Your task to perform on an android device: turn off picture-in-picture Image 0: 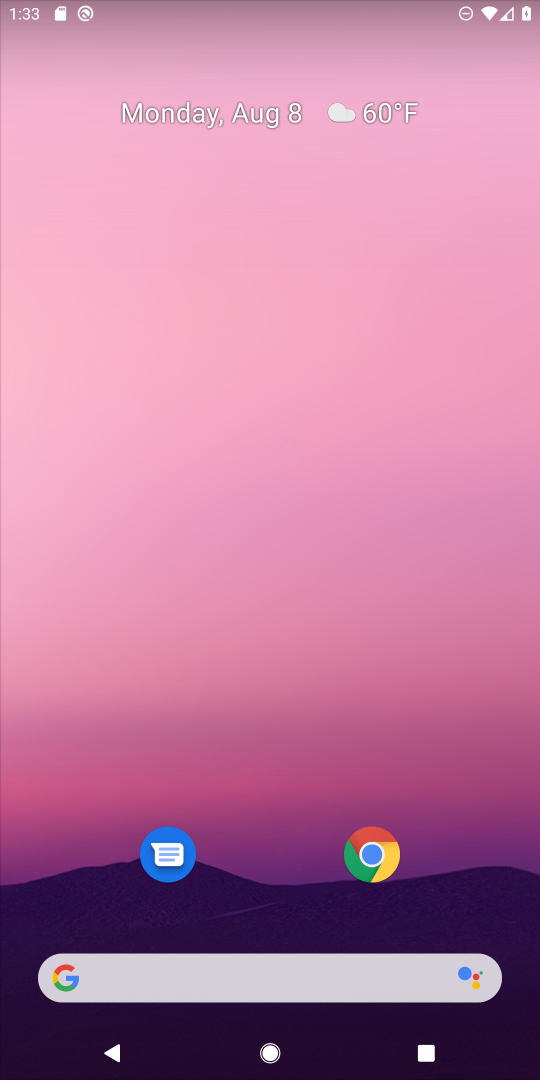
Step 0: click (379, 858)
Your task to perform on an android device: turn off picture-in-picture Image 1: 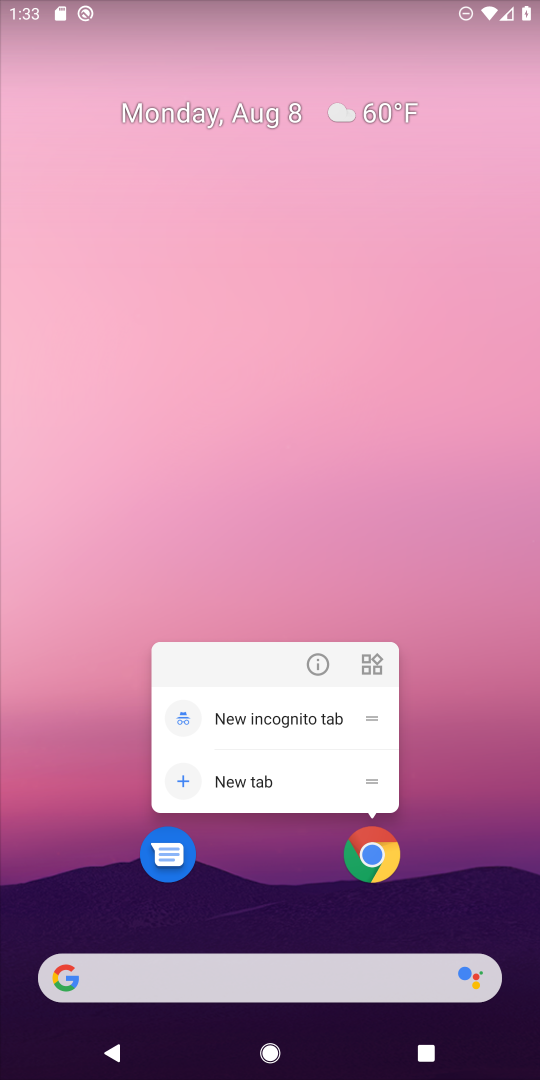
Step 1: click (319, 660)
Your task to perform on an android device: turn off picture-in-picture Image 2: 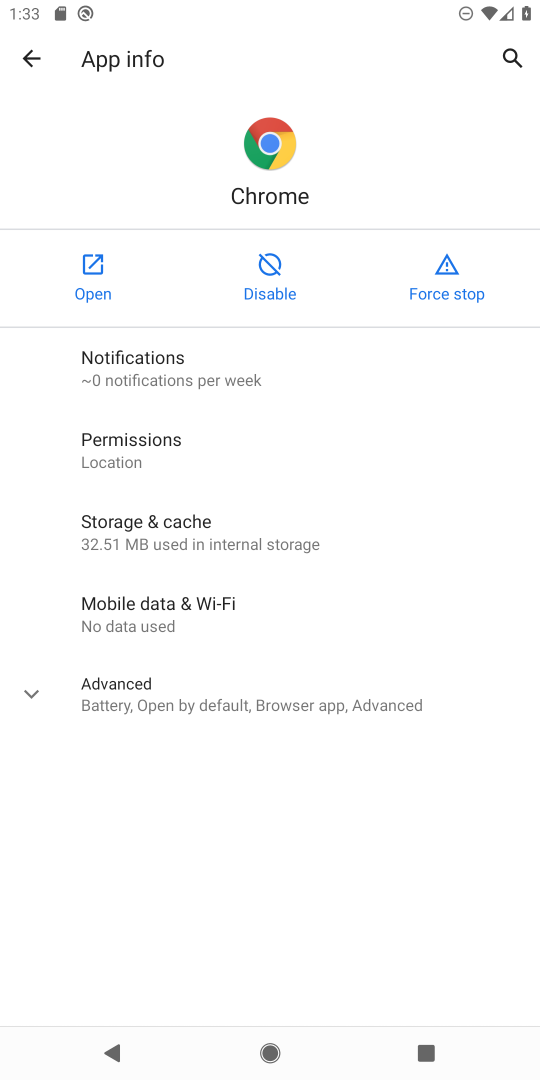
Step 2: click (36, 691)
Your task to perform on an android device: turn off picture-in-picture Image 3: 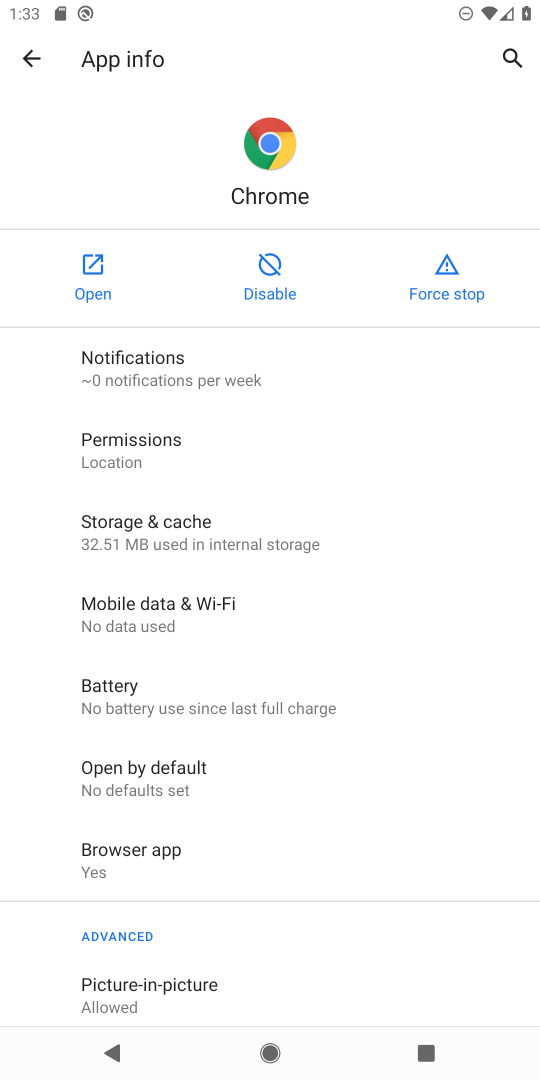
Step 3: click (200, 989)
Your task to perform on an android device: turn off picture-in-picture Image 4: 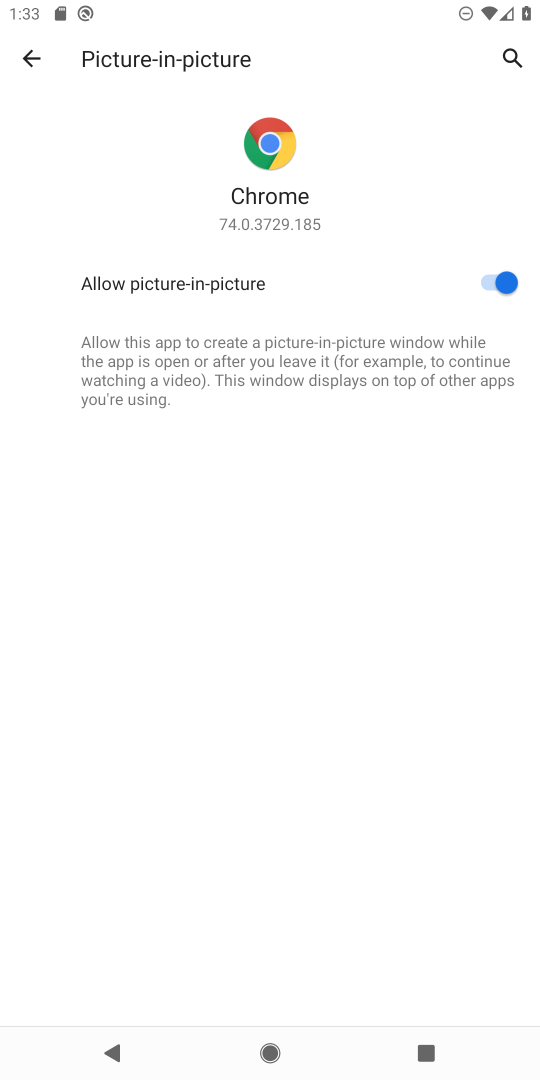
Step 4: click (496, 279)
Your task to perform on an android device: turn off picture-in-picture Image 5: 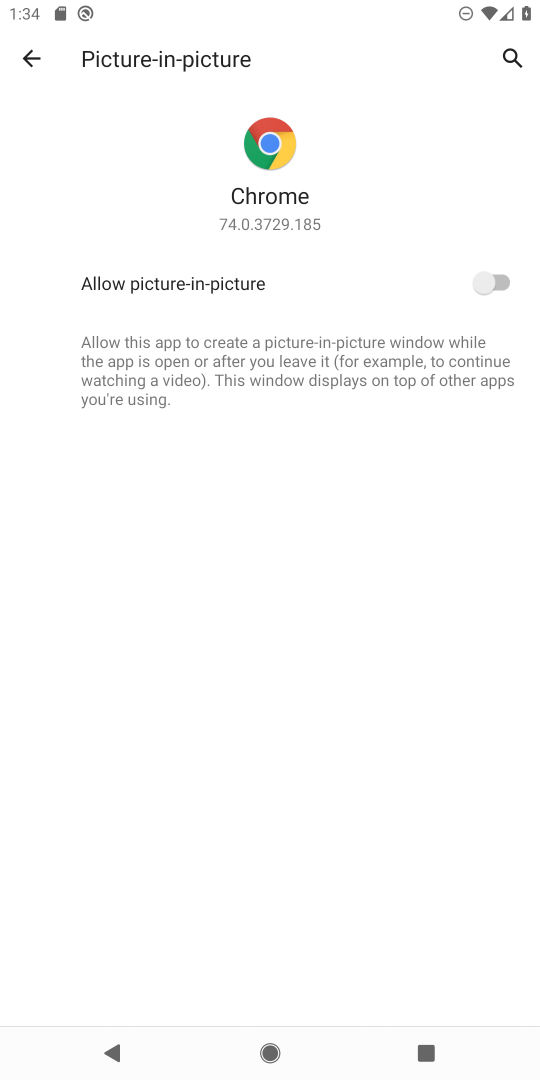
Step 5: task complete